Your task to perform on an android device: Find coffee shops on Maps Image 0: 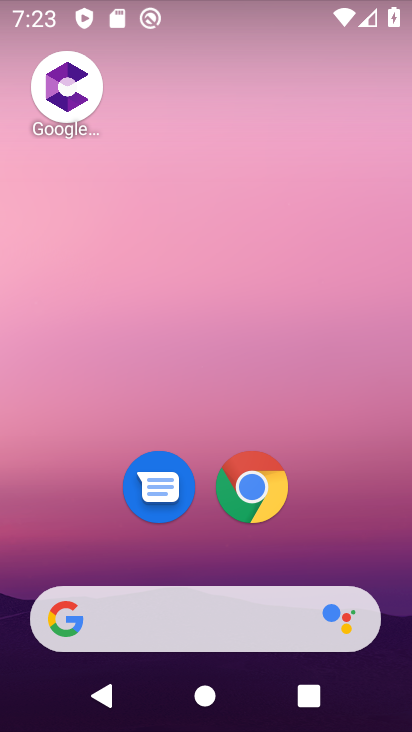
Step 0: drag from (378, 553) to (377, 224)
Your task to perform on an android device: Find coffee shops on Maps Image 1: 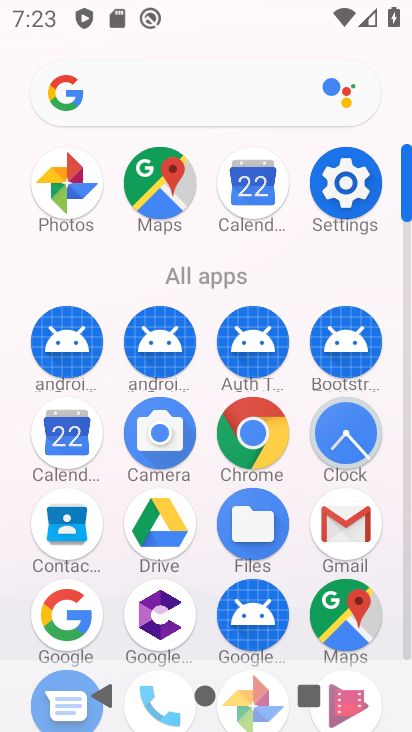
Step 1: drag from (386, 655) to (388, 378)
Your task to perform on an android device: Find coffee shops on Maps Image 2: 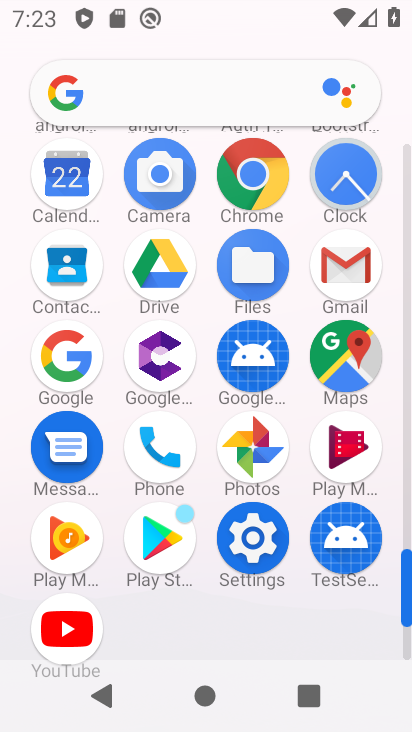
Step 2: click (357, 370)
Your task to perform on an android device: Find coffee shops on Maps Image 3: 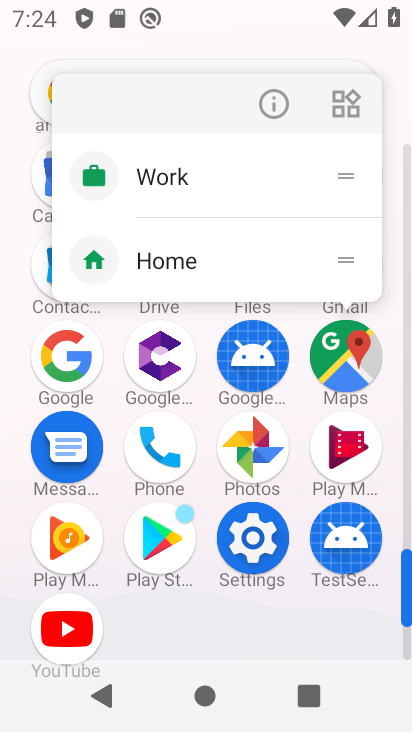
Step 3: click (360, 363)
Your task to perform on an android device: Find coffee shops on Maps Image 4: 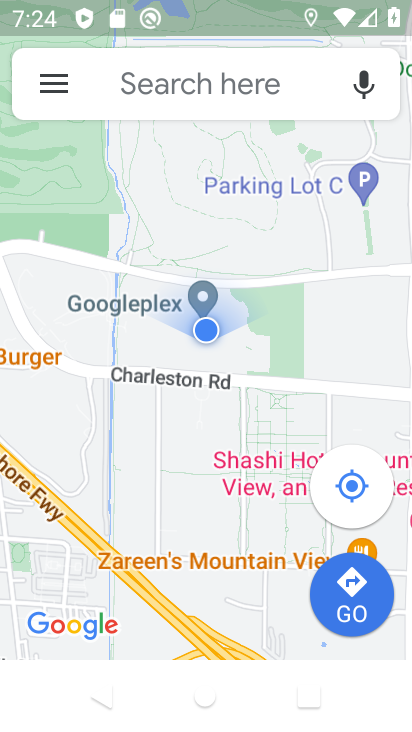
Step 4: click (213, 94)
Your task to perform on an android device: Find coffee shops on Maps Image 5: 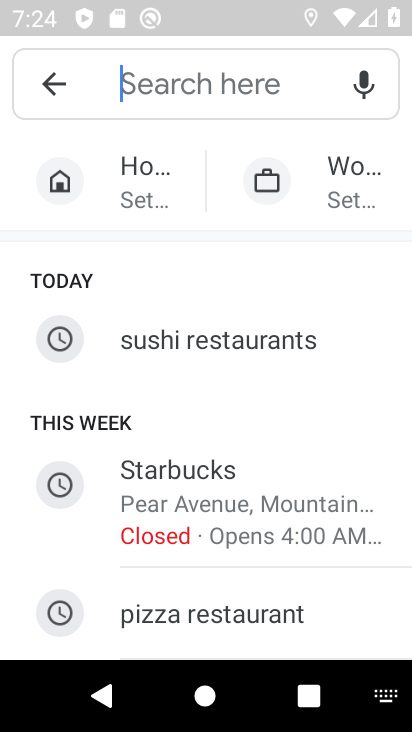
Step 5: type "coffee"
Your task to perform on an android device: Find coffee shops on Maps Image 6: 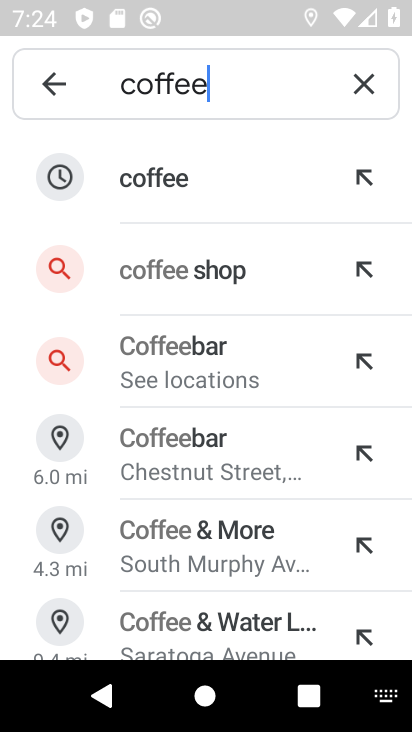
Step 6: click (229, 203)
Your task to perform on an android device: Find coffee shops on Maps Image 7: 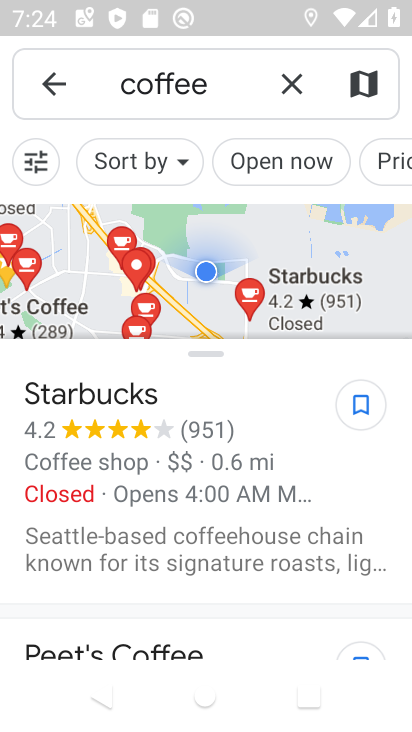
Step 7: task complete